Your task to perform on an android device: Open the map Image 0: 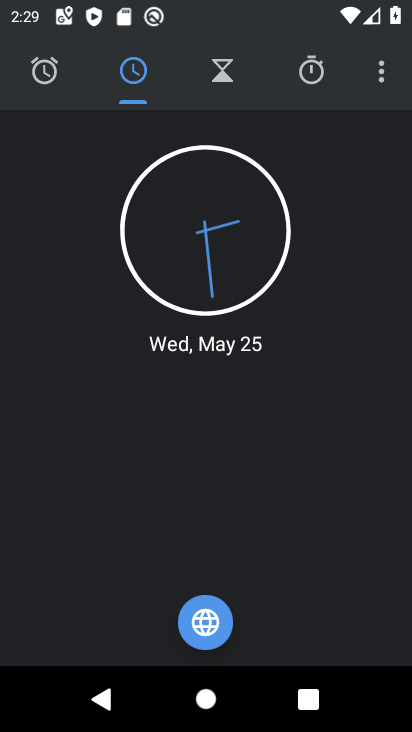
Step 0: press home button
Your task to perform on an android device: Open the map Image 1: 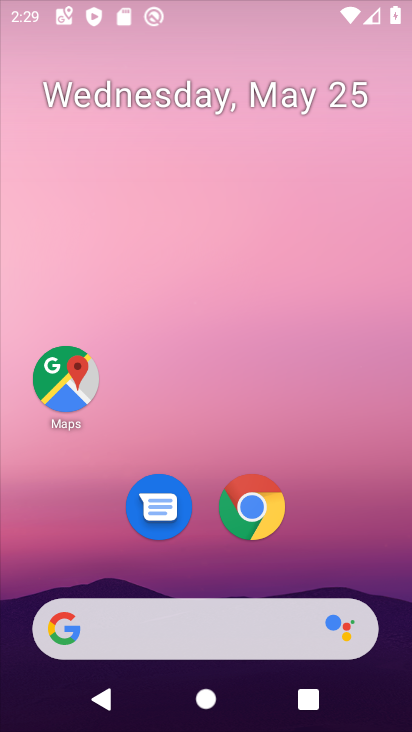
Step 1: drag from (227, 606) to (283, 152)
Your task to perform on an android device: Open the map Image 2: 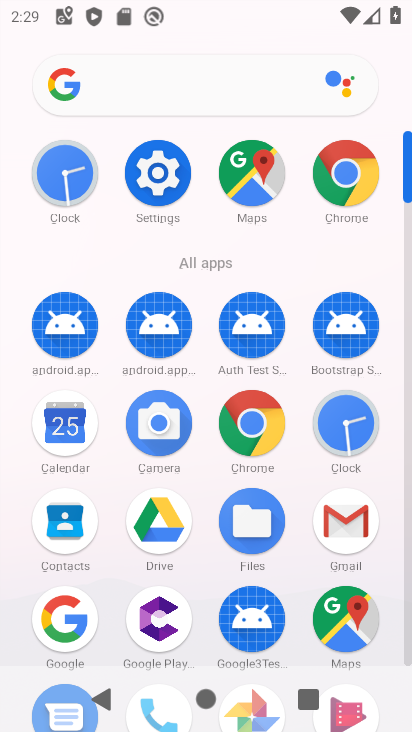
Step 2: click (348, 627)
Your task to perform on an android device: Open the map Image 3: 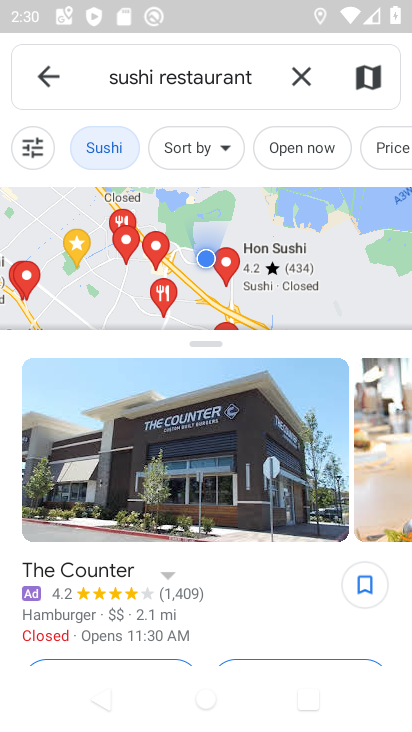
Step 3: task complete